Your task to perform on an android device: set the stopwatch Image 0: 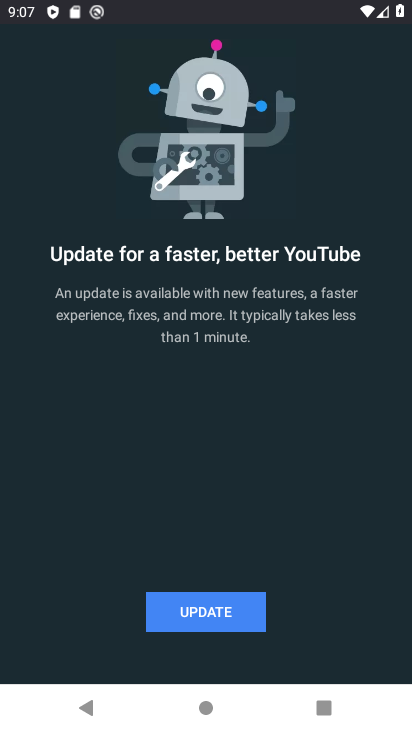
Step 0: press home button
Your task to perform on an android device: set the stopwatch Image 1: 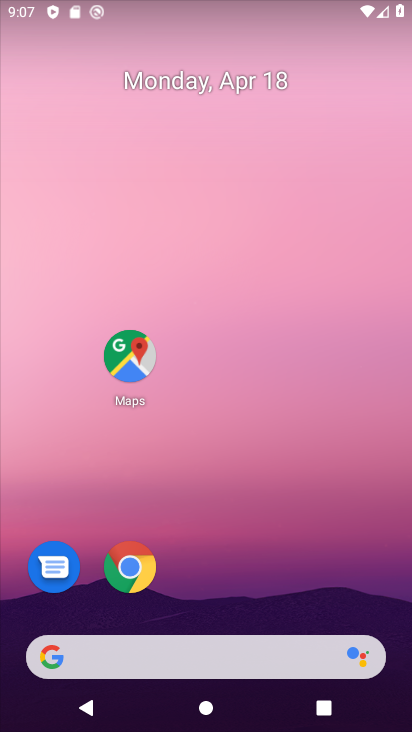
Step 1: drag from (246, 681) to (373, 341)
Your task to perform on an android device: set the stopwatch Image 2: 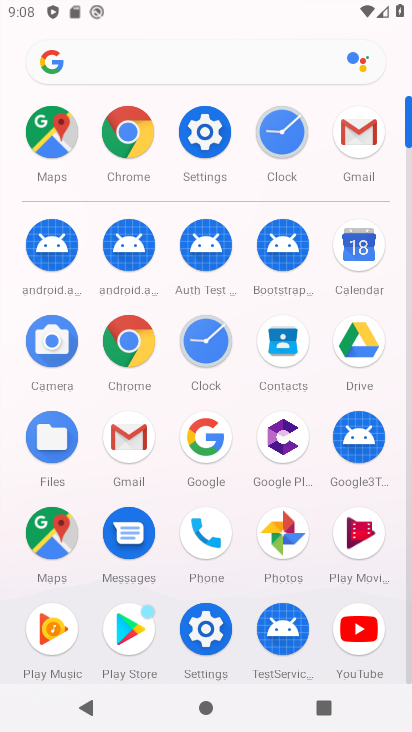
Step 2: click (287, 145)
Your task to perform on an android device: set the stopwatch Image 3: 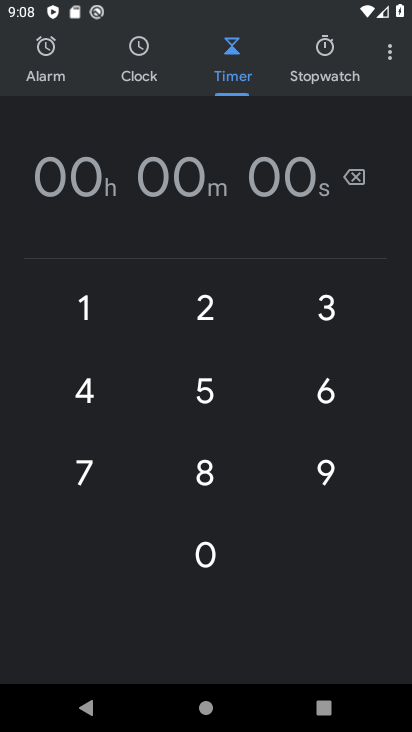
Step 3: click (309, 66)
Your task to perform on an android device: set the stopwatch Image 4: 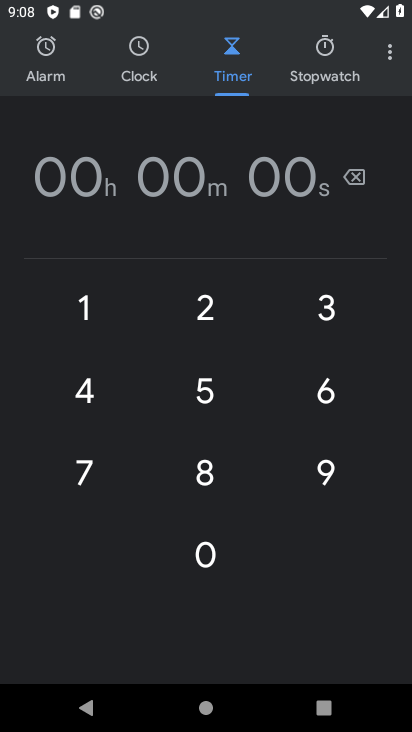
Step 4: click (316, 69)
Your task to perform on an android device: set the stopwatch Image 5: 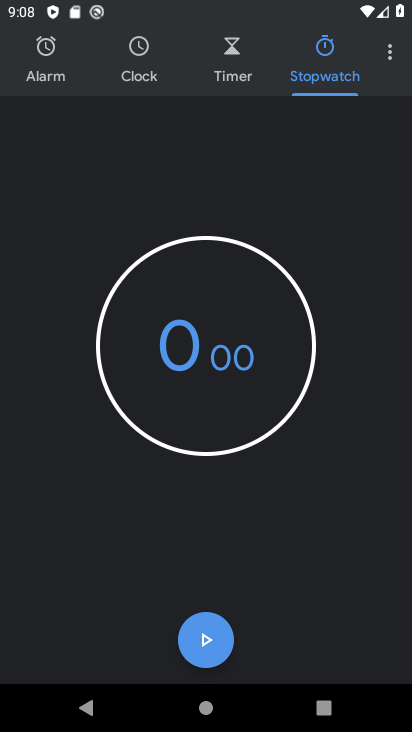
Step 5: click (194, 629)
Your task to perform on an android device: set the stopwatch Image 6: 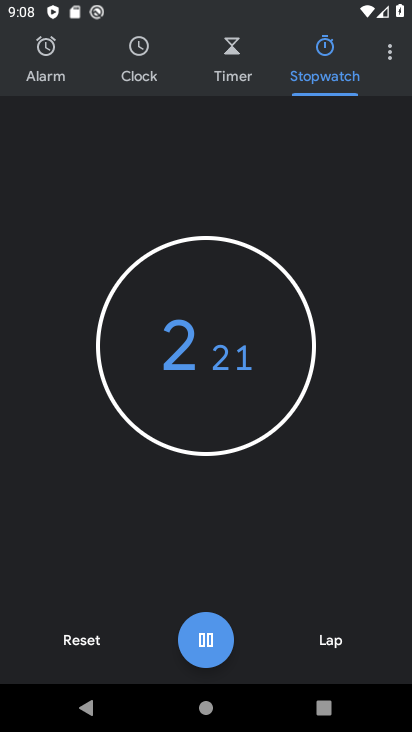
Step 6: click (215, 634)
Your task to perform on an android device: set the stopwatch Image 7: 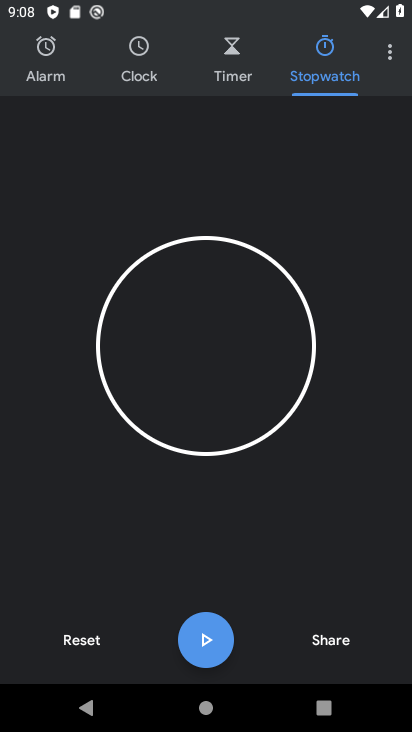
Step 7: task complete